Your task to perform on an android device: see creations saved in the google photos Image 0: 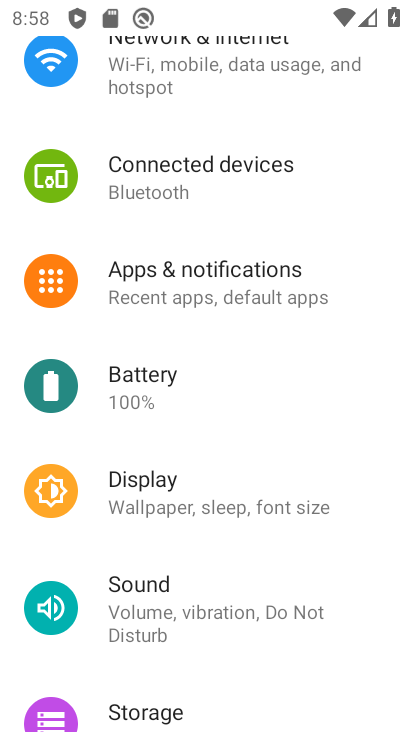
Step 0: press home button
Your task to perform on an android device: see creations saved in the google photos Image 1: 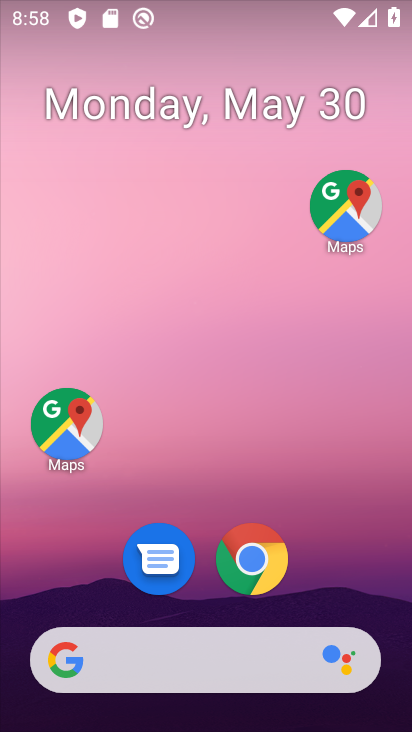
Step 1: drag from (314, 527) to (300, 109)
Your task to perform on an android device: see creations saved in the google photos Image 2: 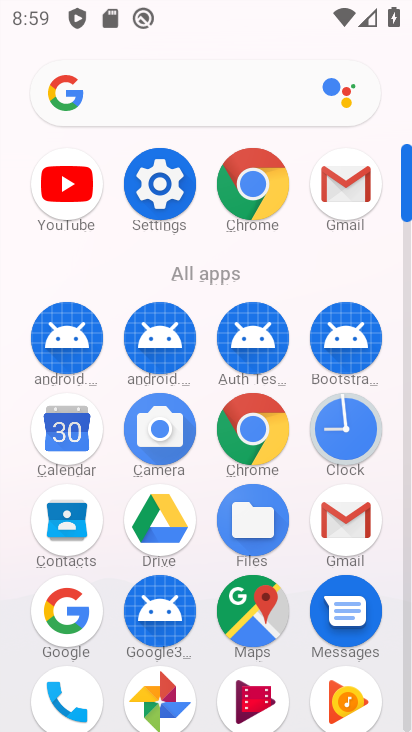
Step 2: click (170, 690)
Your task to perform on an android device: see creations saved in the google photos Image 3: 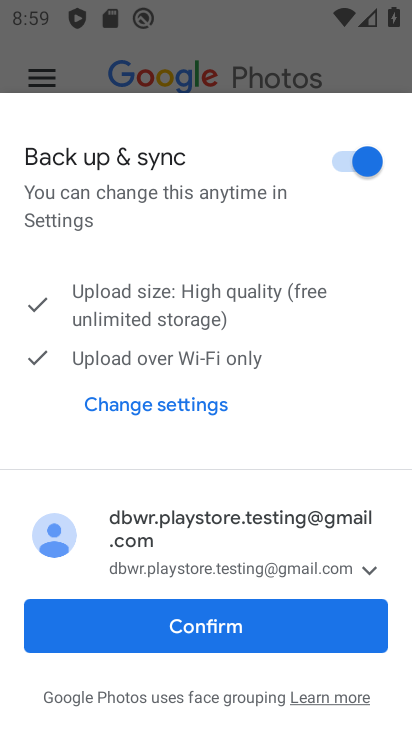
Step 3: click (289, 633)
Your task to perform on an android device: see creations saved in the google photos Image 4: 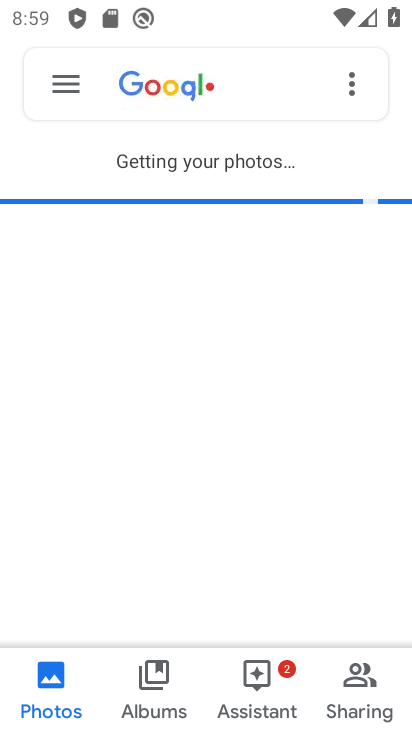
Step 4: click (254, 704)
Your task to perform on an android device: see creations saved in the google photos Image 5: 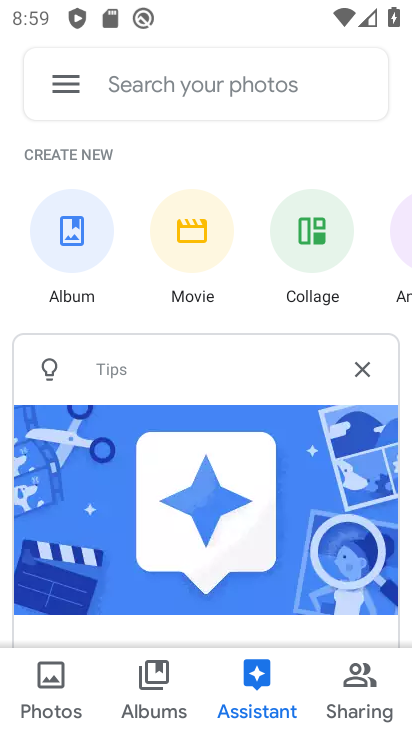
Step 5: task complete